Your task to perform on an android device: add a contact in the contacts app Image 0: 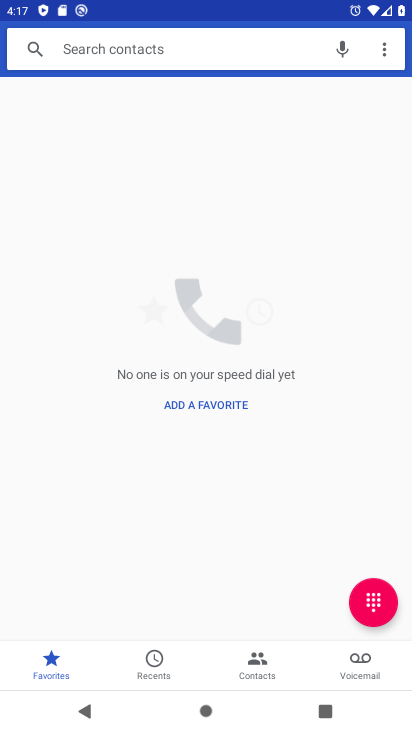
Step 0: press home button
Your task to perform on an android device: add a contact in the contacts app Image 1: 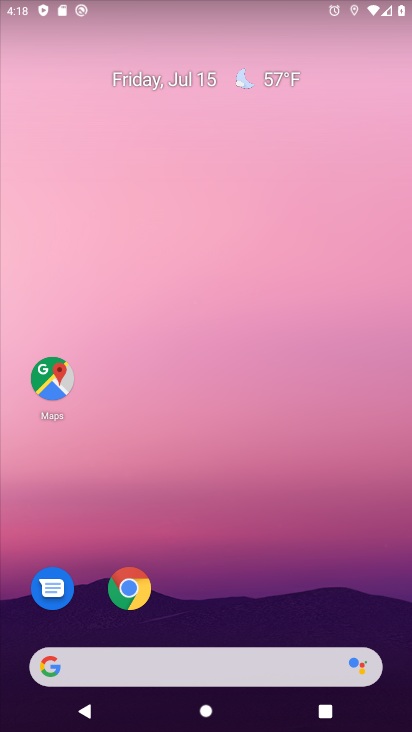
Step 1: drag from (189, 663) to (405, 482)
Your task to perform on an android device: add a contact in the contacts app Image 2: 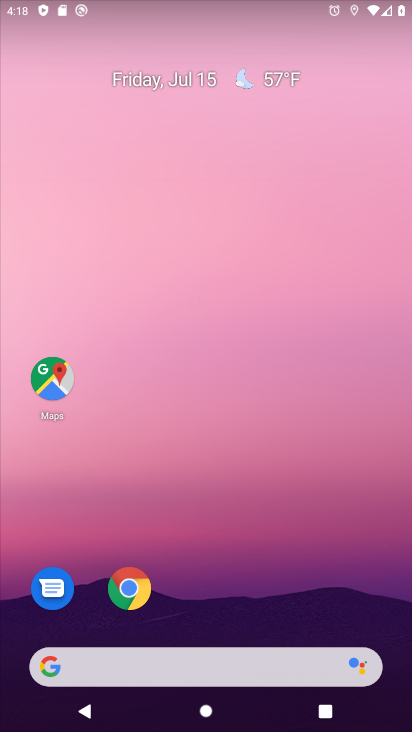
Step 2: drag from (171, 676) to (244, 47)
Your task to perform on an android device: add a contact in the contacts app Image 3: 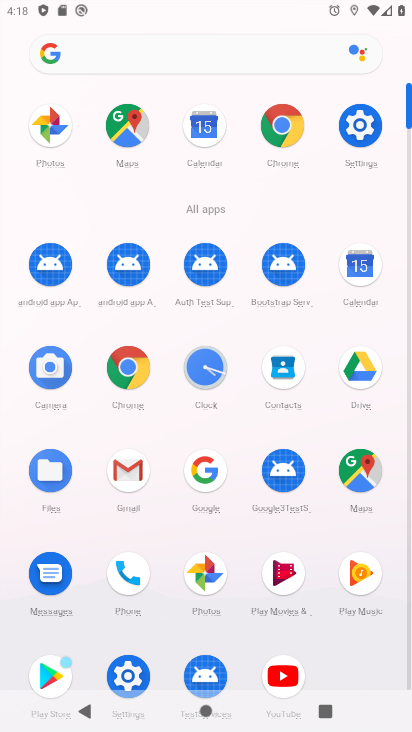
Step 3: click (281, 361)
Your task to perform on an android device: add a contact in the contacts app Image 4: 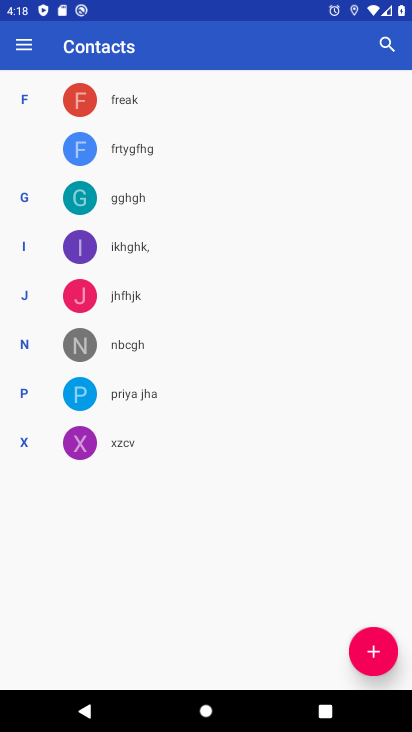
Step 4: click (372, 654)
Your task to perform on an android device: add a contact in the contacts app Image 5: 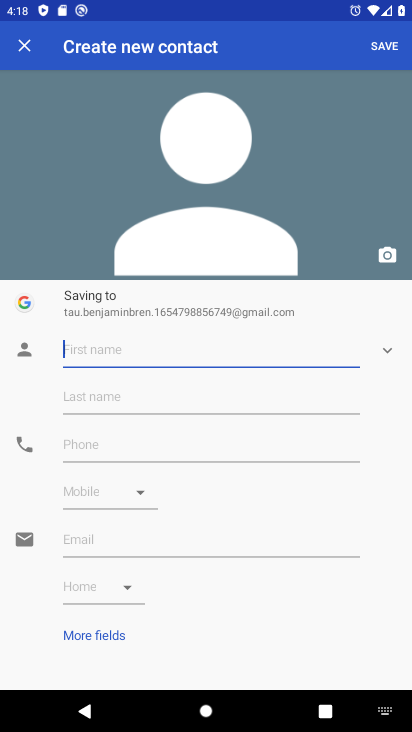
Step 5: type "Abdul"
Your task to perform on an android device: add a contact in the contacts app Image 6: 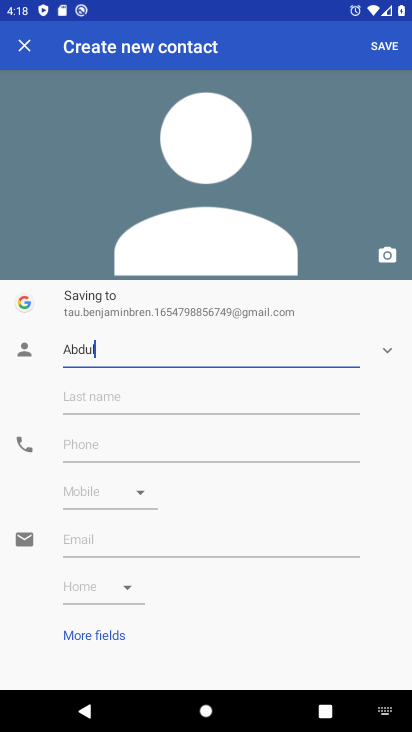
Step 6: click (301, 393)
Your task to perform on an android device: add a contact in the contacts app Image 7: 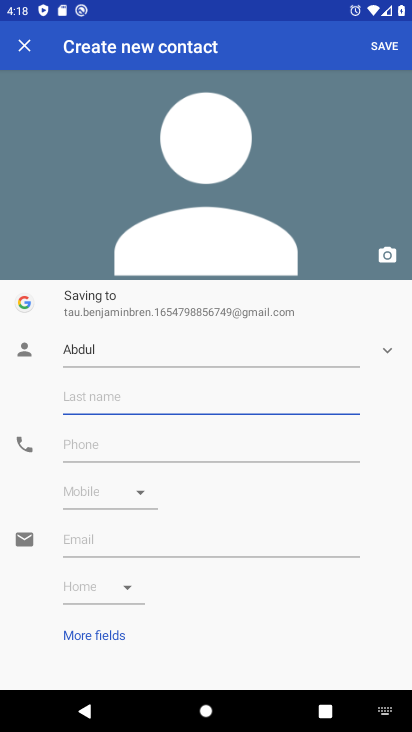
Step 7: type "Gaffar"
Your task to perform on an android device: add a contact in the contacts app Image 8: 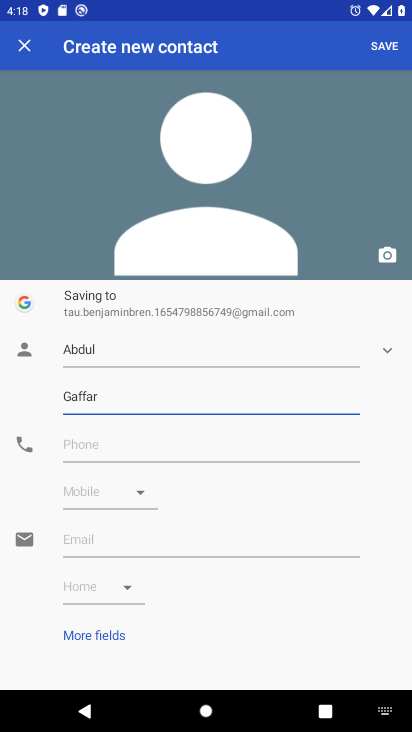
Step 8: click (251, 454)
Your task to perform on an android device: add a contact in the contacts app Image 9: 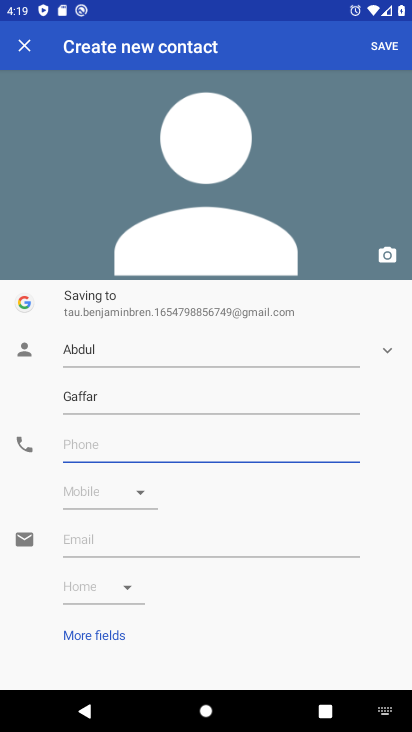
Step 9: type "09977553311"
Your task to perform on an android device: add a contact in the contacts app Image 10: 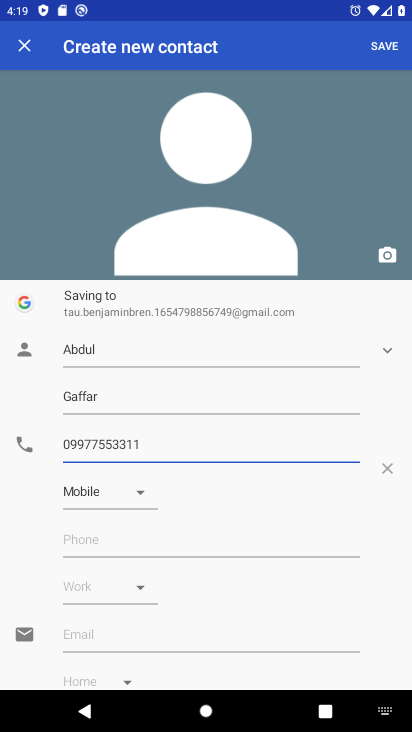
Step 10: click (394, 46)
Your task to perform on an android device: add a contact in the contacts app Image 11: 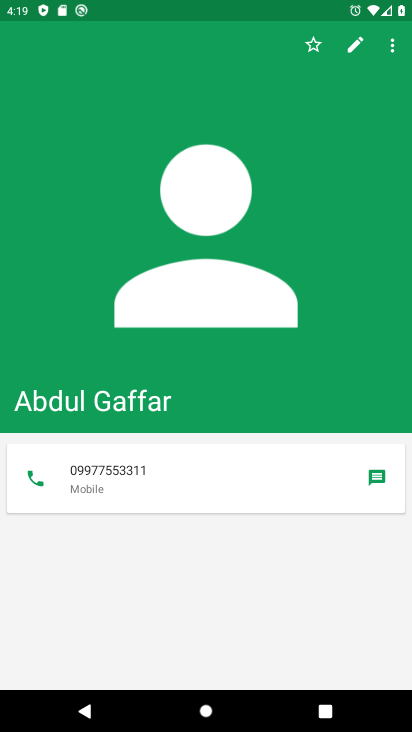
Step 11: task complete